Your task to perform on an android device: set default search engine in the chrome app Image 0: 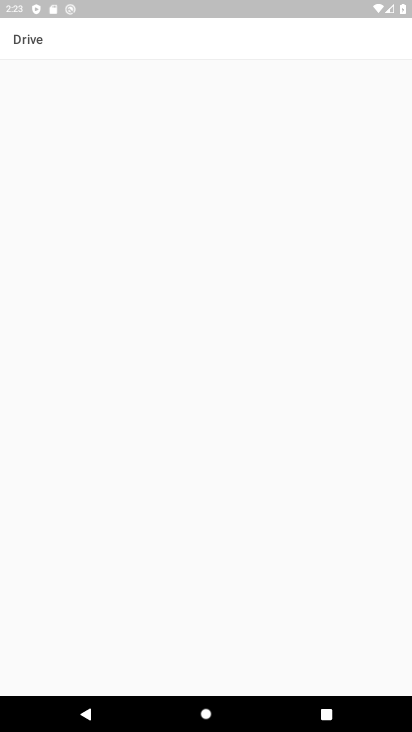
Step 0: press home button
Your task to perform on an android device: set default search engine in the chrome app Image 1: 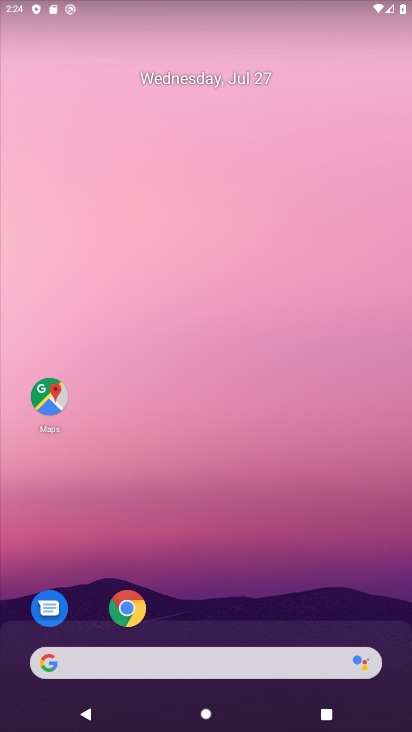
Step 1: click (129, 613)
Your task to perform on an android device: set default search engine in the chrome app Image 2: 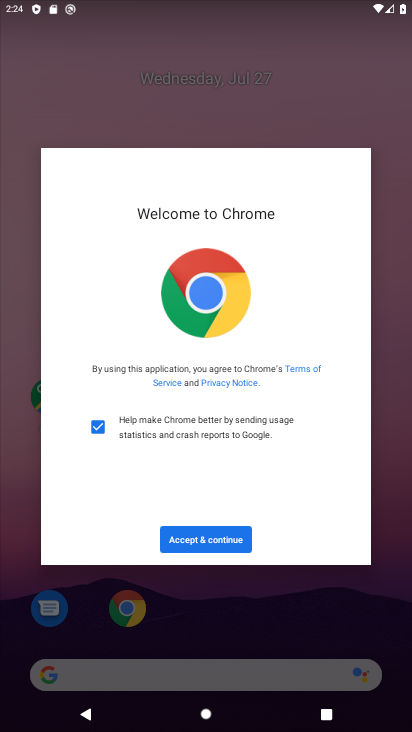
Step 2: click (231, 537)
Your task to perform on an android device: set default search engine in the chrome app Image 3: 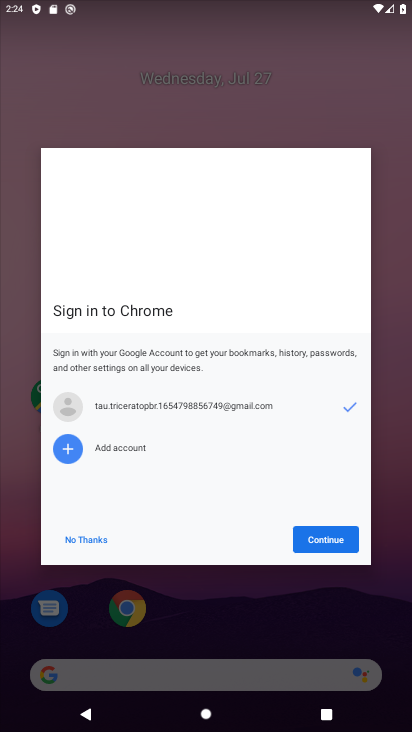
Step 3: click (314, 551)
Your task to perform on an android device: set default search engine in the chrome app Image 4: 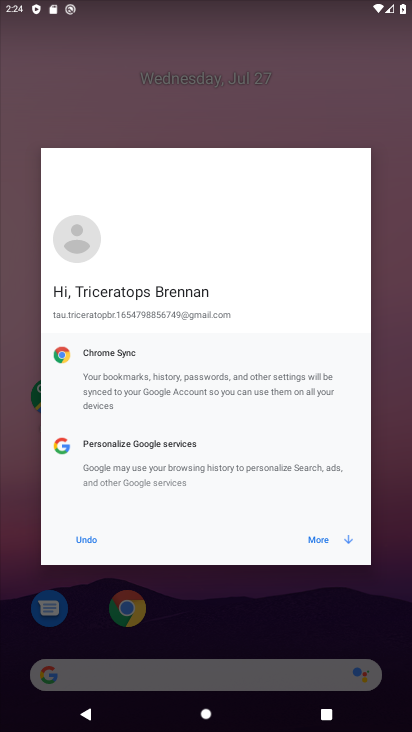
Step 4: click (325, 545)
Your task to perform on an android device: set default search engine in the chrome app Image 5: 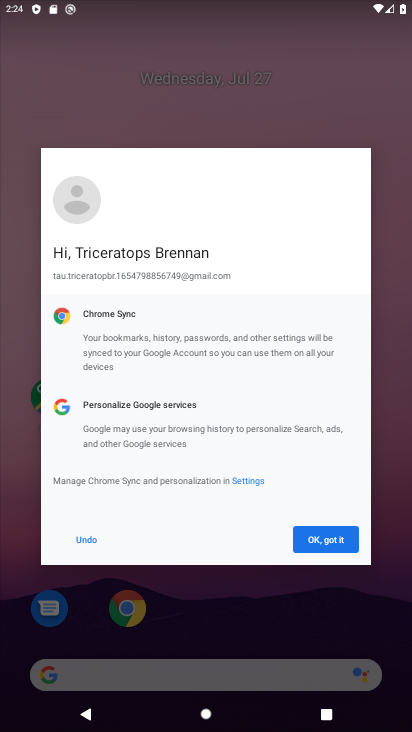
Step 5: click (325, 545)
Your task to perform on an android device: set default search engine in the chrome app Image 6: 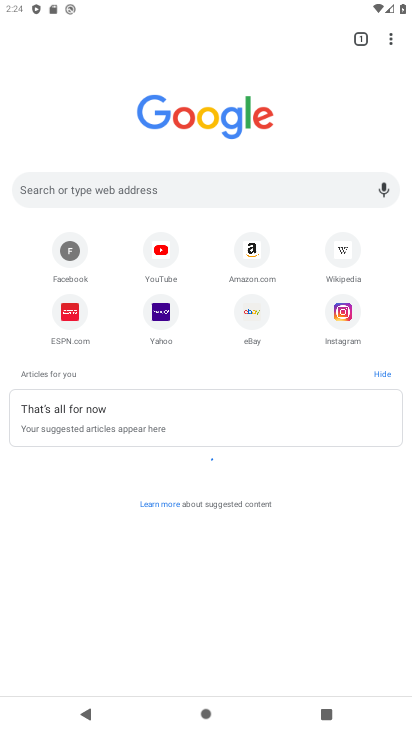
Step 6: click (396, 43)
Your task to perform on an android device: set default search engine in the chrome app Image 7: 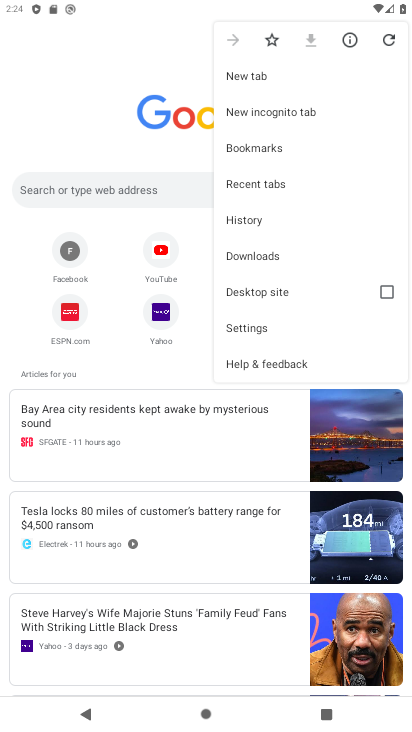
Step 7: click (252, 328)
Your task to perform on an android device: set default search engine in the chrome app Image 8: 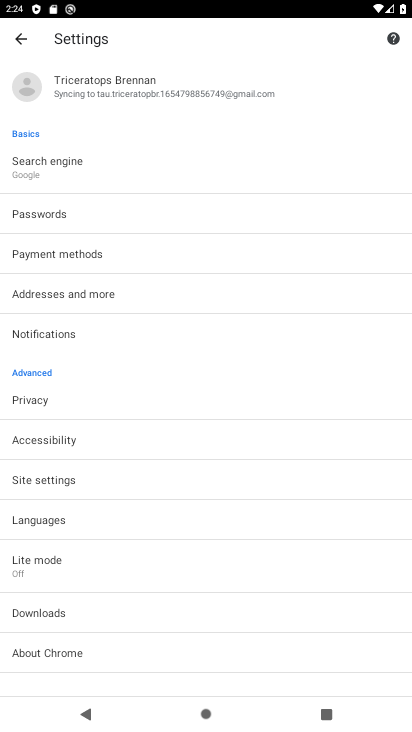
Step 8: click (127, 164)
Your task to perform on an android device: set default search engine in the chrome app Image 9: 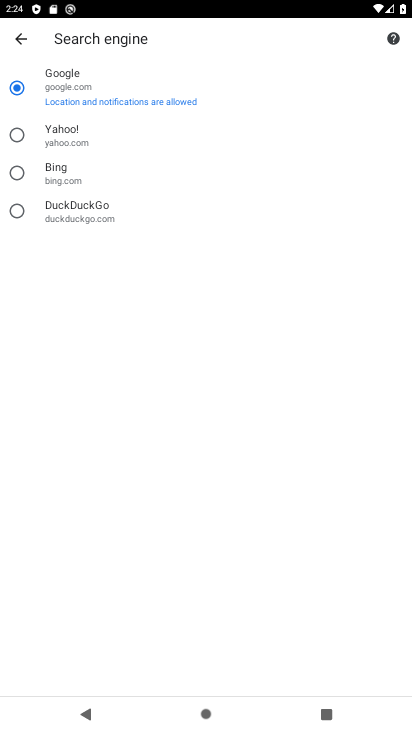
Step 9: click (103, 136)
Your task to perform on an android device: set default search engine in the chrome app Image 10: 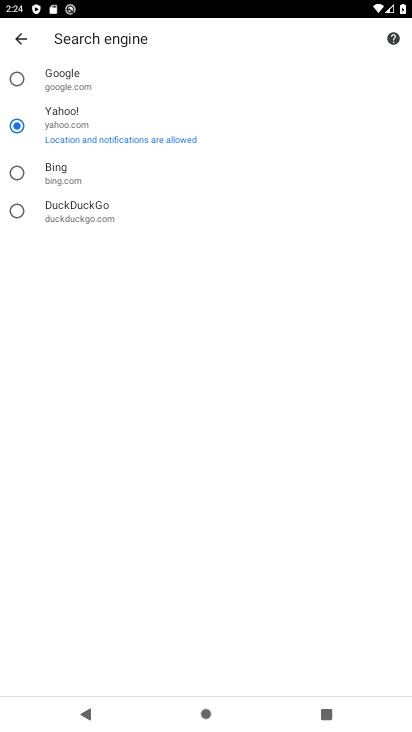
Step 10: task complete